Your task to perform on an android device: see tabs open on other devices in the chrome app Image 0: 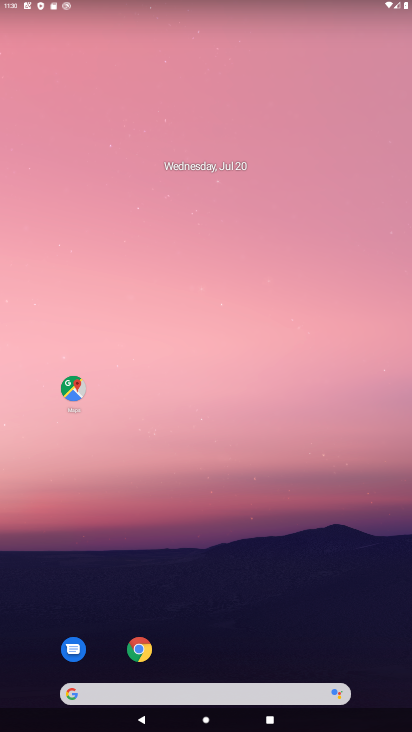
Step 0: click (142, 648)
Your task to perform on an android device: see tabs open on other devices in the chrome app Image 1: 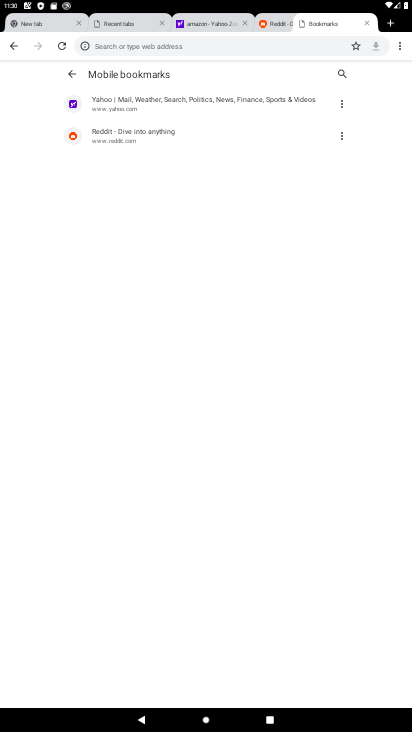
Step 1: task complete